Your task to perform on an android device: open wifi settings Image 0: 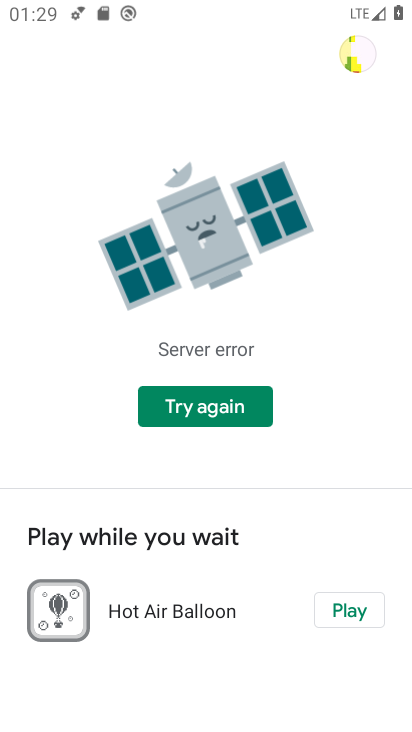
Step 0: press home button
Your task to perform on an android device: open wifi settings Image 1: 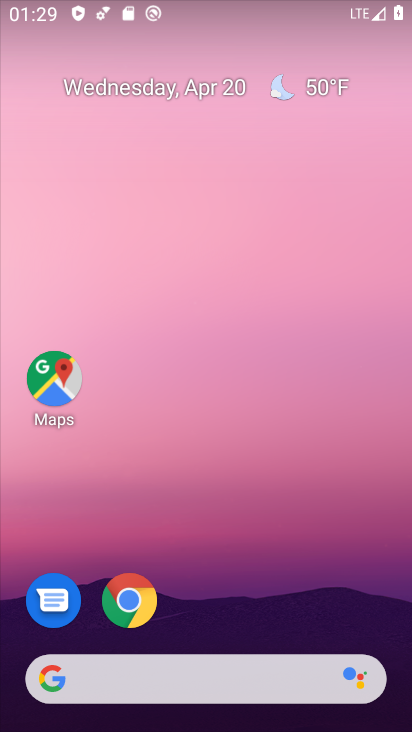
Step 1: drag from (257, 611) to (253, 63)
Your task to perform on an android device: open wifi settings Image 2: 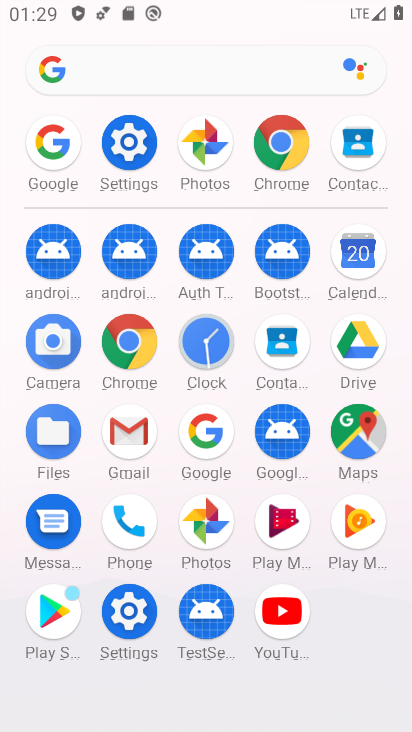
Step 2: click (127, 133)
Your task to perform on an android device: open wifi settings Image 3: 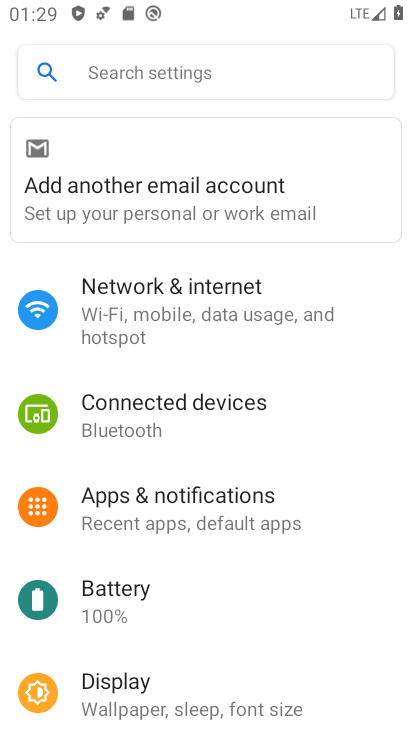
Step 3: click (161, 289)
Your task to perform on an android device: open wifi settings Image 4: 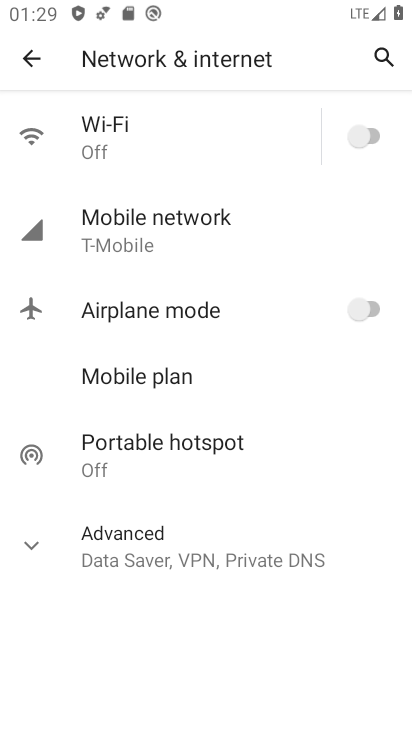
Step 4: click (230, 105)
Your task to perform on an android device: open wifi settings Image 5: 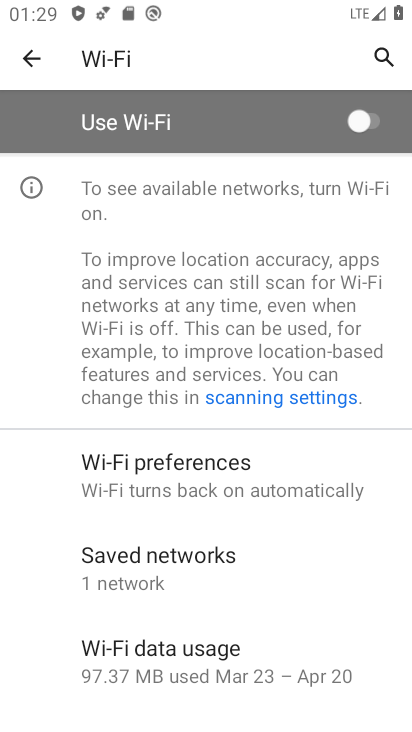
Step 5: click (365, 139)
Your task to perform on an android device: open wifi settings Image 6: 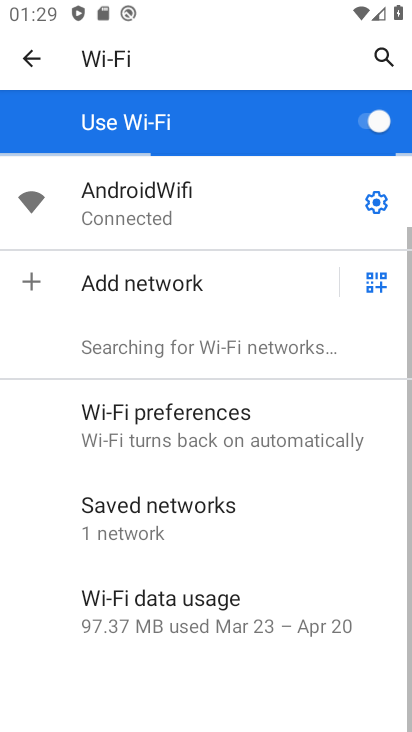
Step 6: click (374, 208)
Your task to perform on an android device: open wifi settings Image 7: 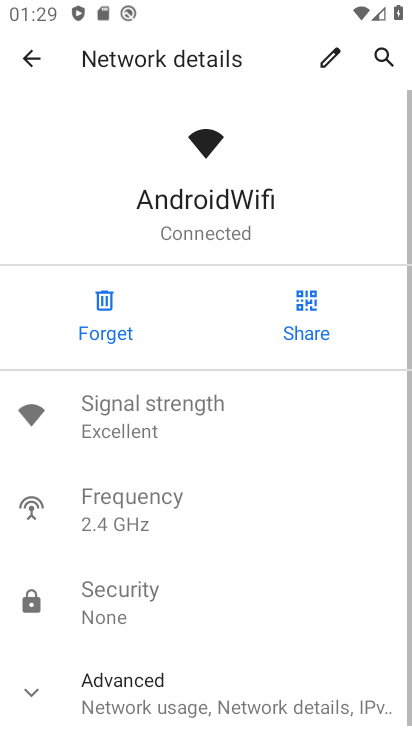
Step 7: task complete